Your task to perform on an android device: install app "Expedia: Hotels, Flights & Car" Image 0: 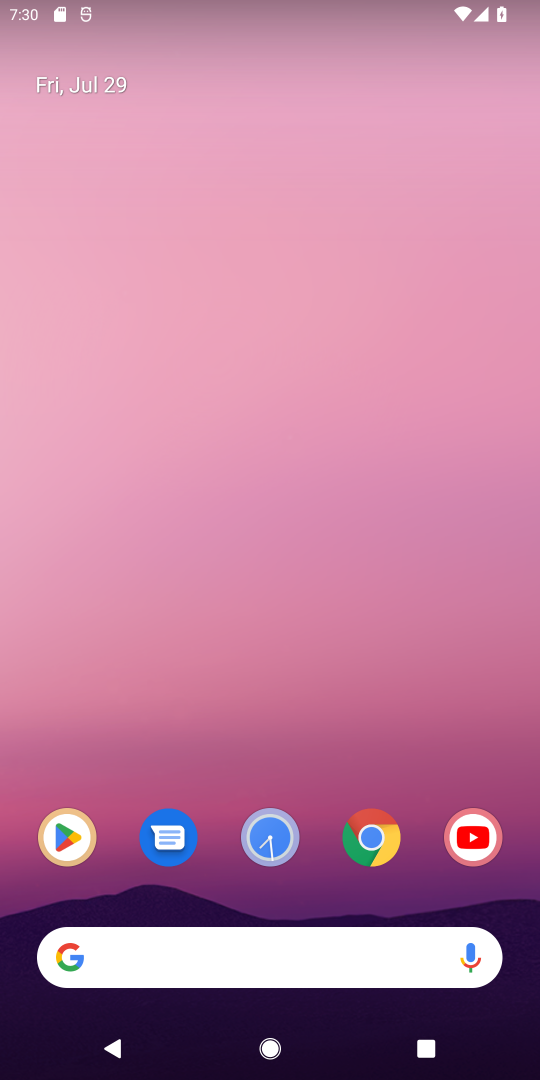
Step 0: click (72, 823)
Your task to perform on an android device: install app "Expedia: Hotels, Flights & Car" Image 1: 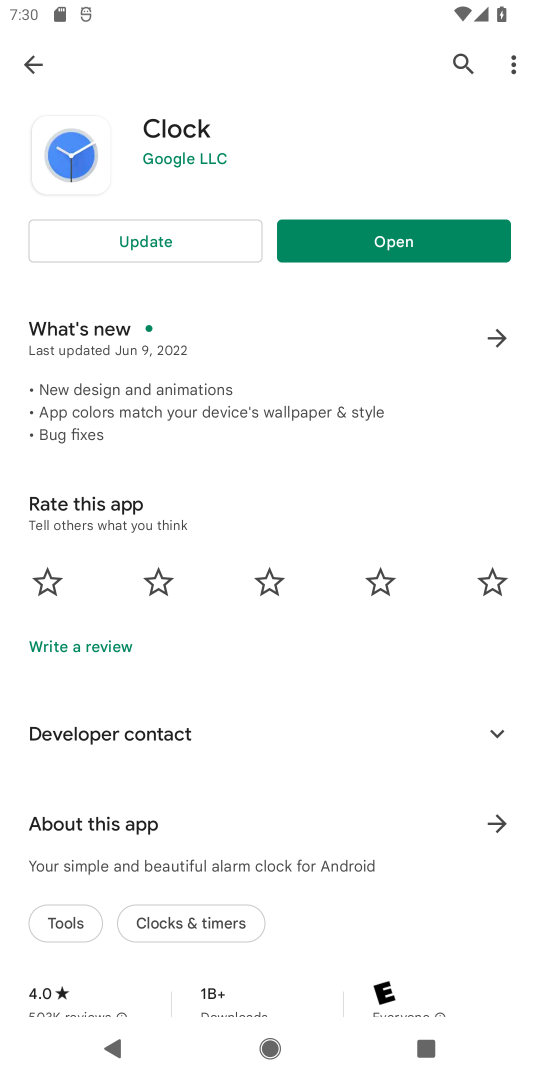
Step 1: click (462, 66)
Your task to perform on an android device: install app "Expedia: Hotels, Flights & Car" Image 2: 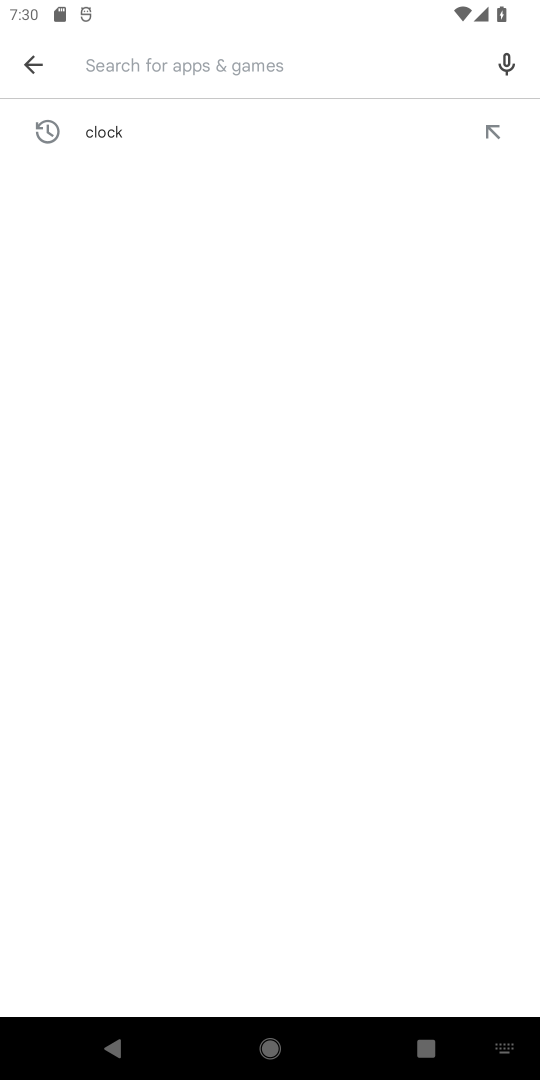
Step 2: type "Expedia: Hotels, Flights & car "
Your task to perform on an android device: install app "Expedia: Hotels, Flights & Car" Image 3: 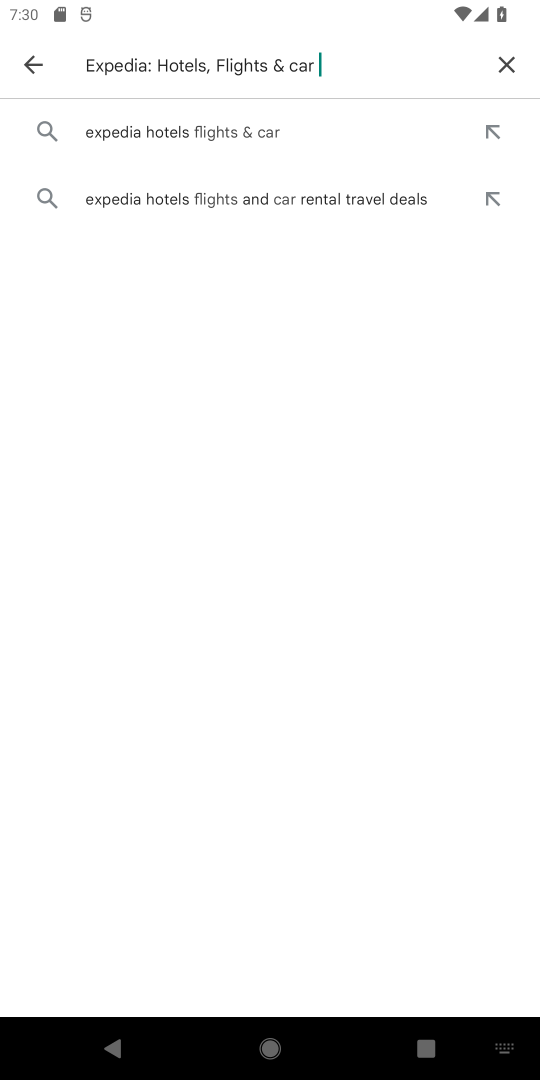
Step 3: click (306, 127)
Your task to perform on an android device: install app "Expedia: Hotels, Flights & Car" Image 4: 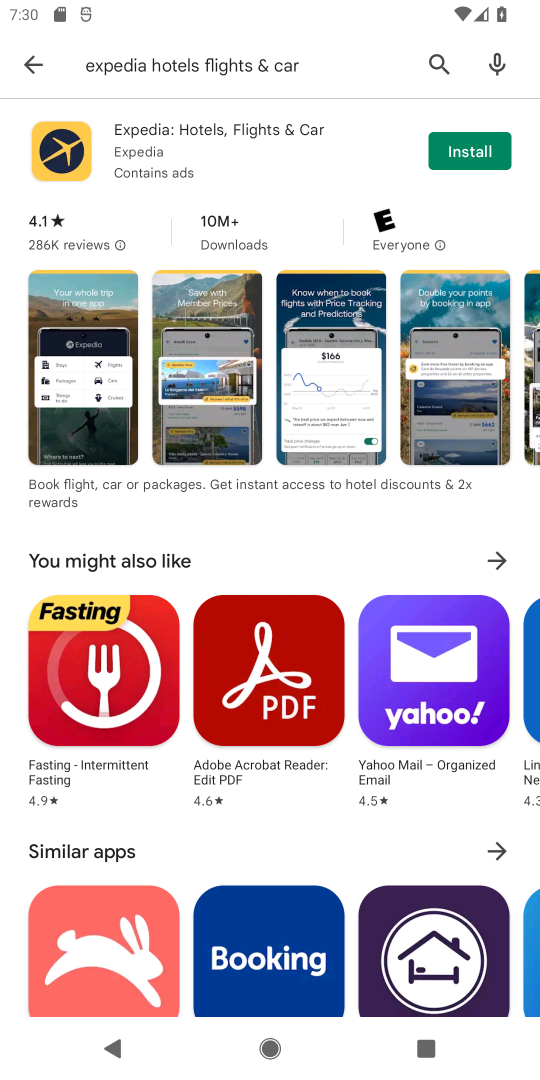
Step 4: click (228, 127)
Your task to perform on an android device: install app "Expedia: Hotels, Flights & Car" Image 5: 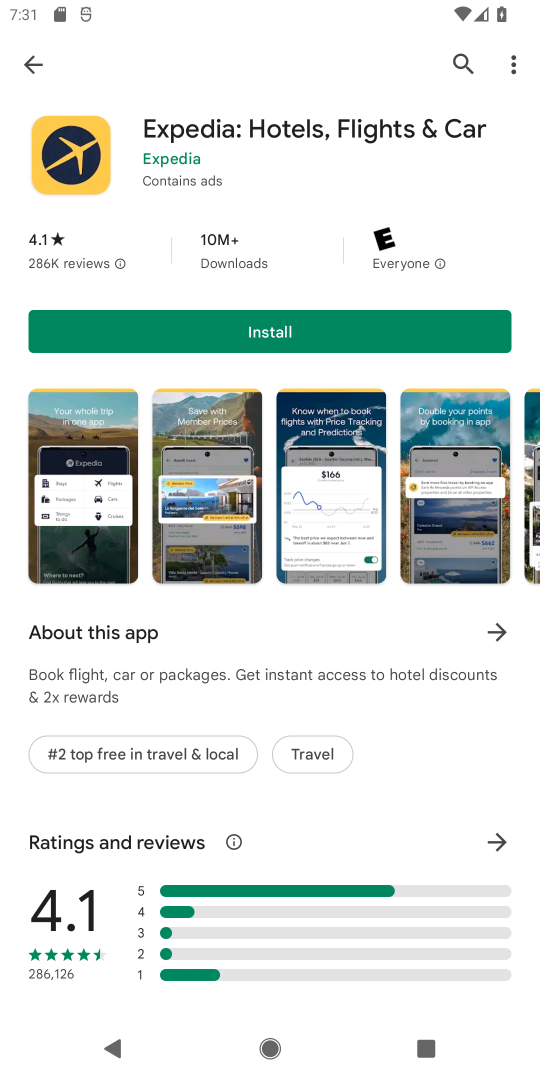
Step 5: click (419, 336)
Your task to perform on an android device: install app "Expedia: Hotels, Flights & Car" Image 6: 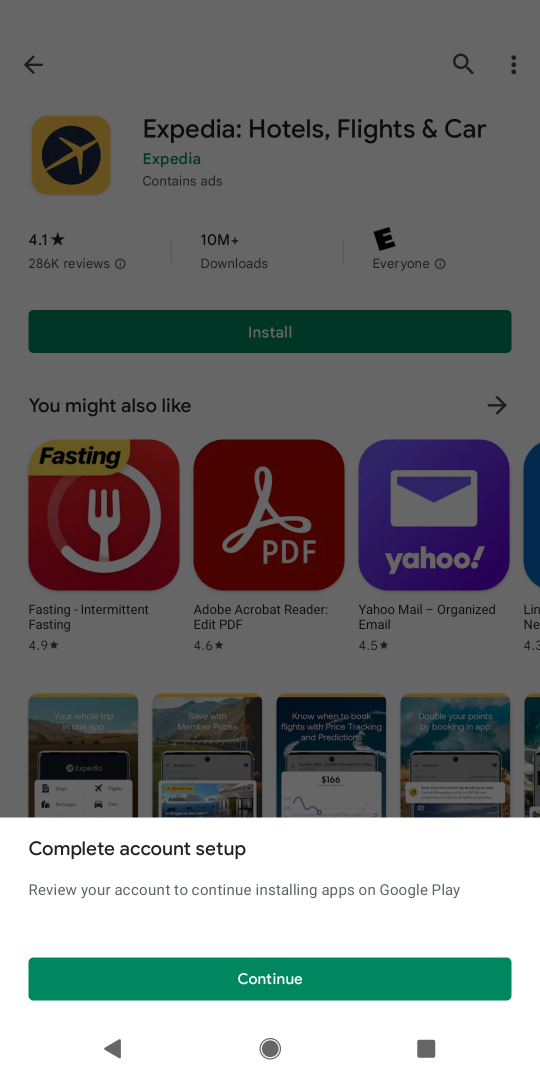
Step 6: click (133, 977)
Your task to perform on an android device: install app "Expedia: Hotels, Flights & Car" Image 7: 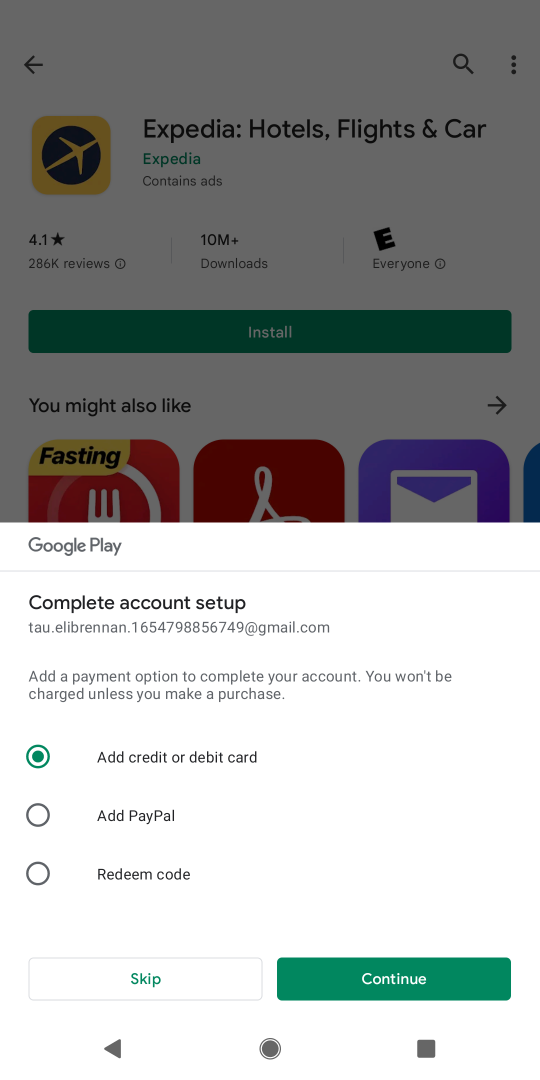
Step 7: click (133, 971)
Your task to perform on an android device: install app "Expedia: Hotels, Flights & Car" Image 8: 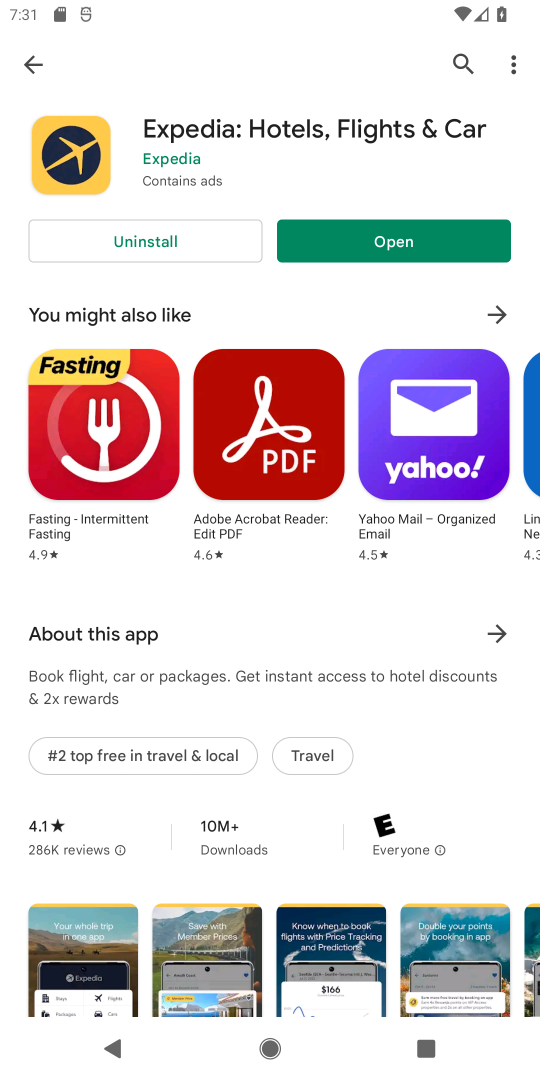
Step 8: task complete